Your task to perform on an android device: open chrome privacy settings Image 0: 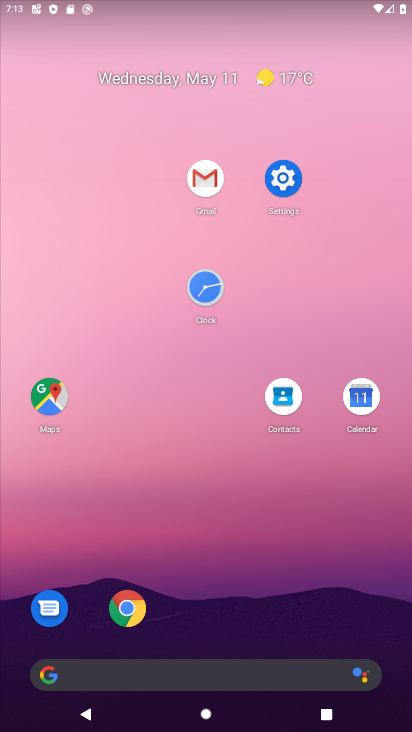
Step 0: click (135, 608)
Your task to perform on an android device: open chrome privacy settings Image 1: 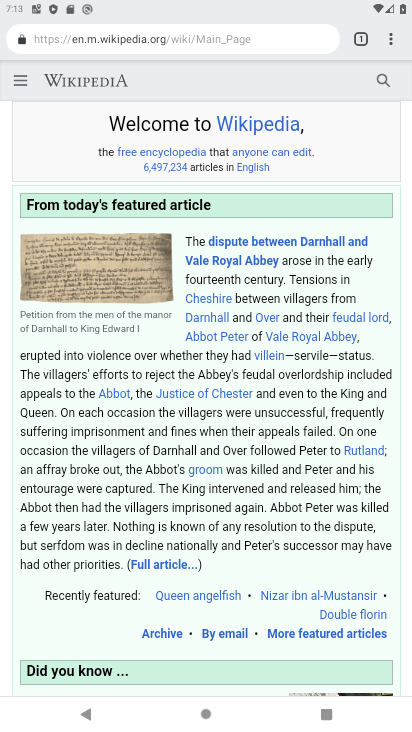
Step 1: click (391, 35)
Your task to perform on an android device: open chrome privacy settings Image 2: 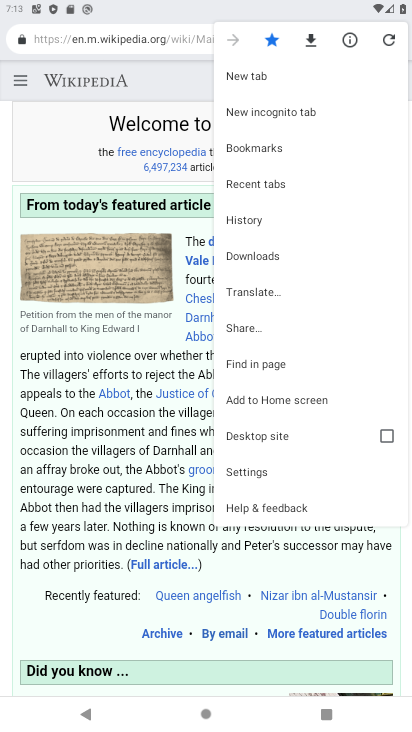
Step 2: click (241, 475)
Your task to perform on an android device: open chrome privacy settings Image 3: 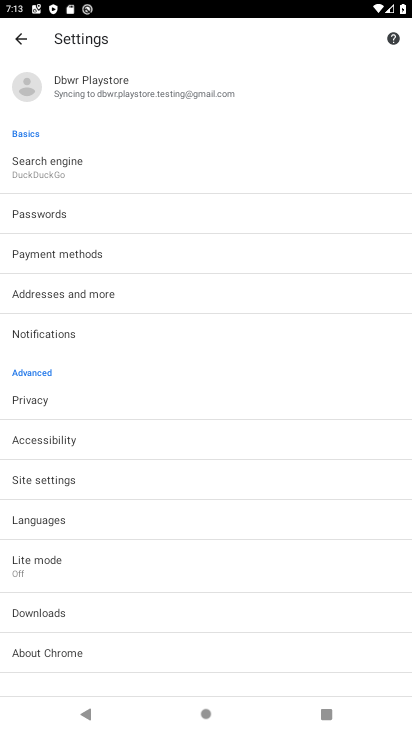
Step 3: click (147, 409)
Your task to perform on an android device: open chrome privacy settings Image 4: 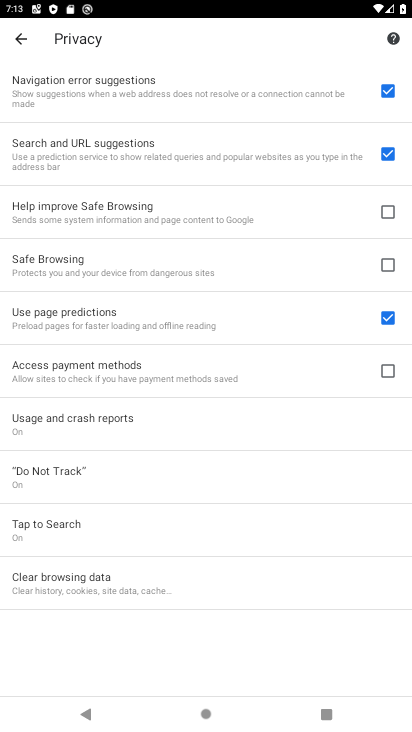
Step 4: task complete